Your task to perform on an android device: change notification settings in the gmail app Image 0: 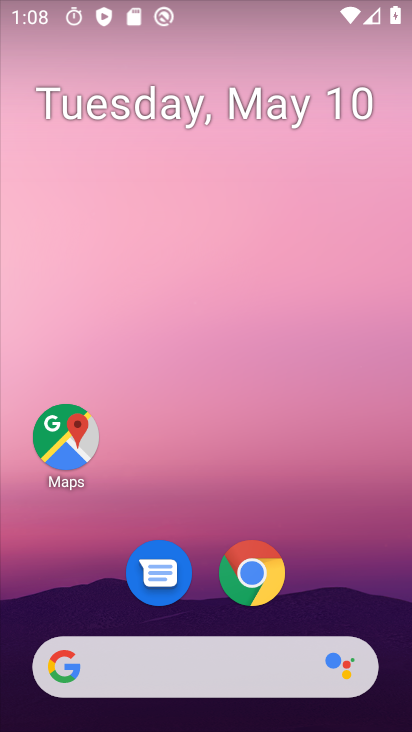
Step 0: drag from (370, 567) to (290, 17)
Your task to perform on an android device: change notification settings in the gmail app Image 1: 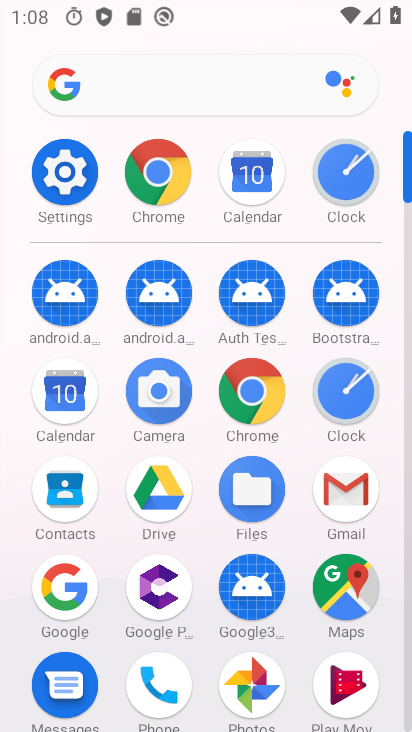
Step 1: click (360, 497)
Your task to perform on an android device: change notification settings in the gmail app Image 2: 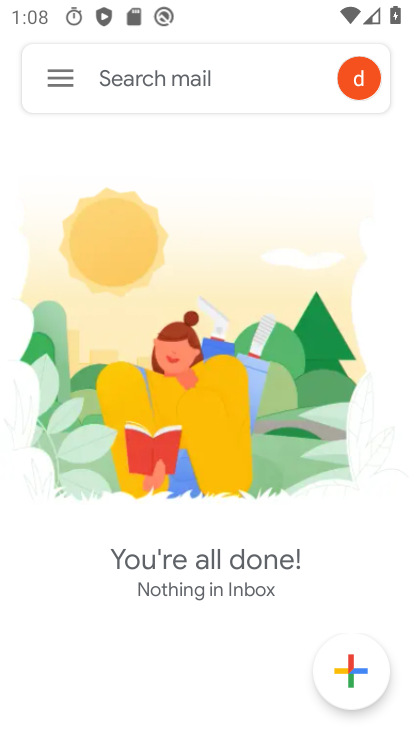
Step 2: click (46, 71)
Your task to perform on an android device: change notification settings in the gmail app Image 3: 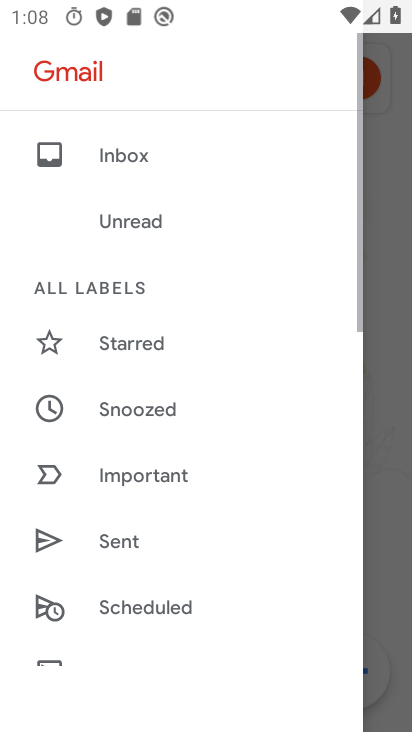
Step 3: drag from (180, 622) to (211, 204)
Your task to perform on an android device: change notification settings in the gmail app Image 4: 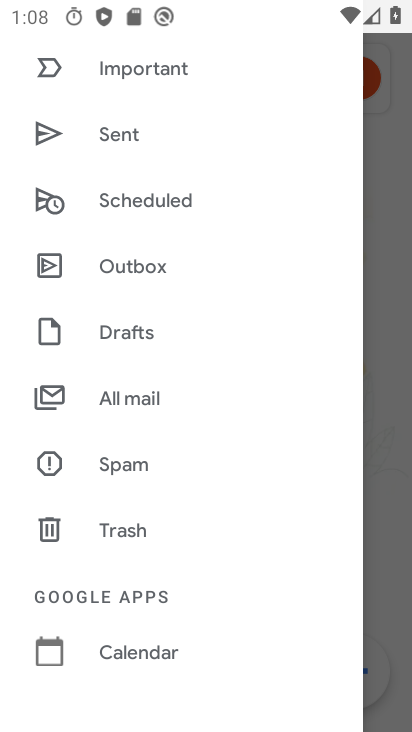
Step 4: drag from (141, 641) to (187, 236)
Your task to perform on an android device: change notification settings in the gmail app Image 5: 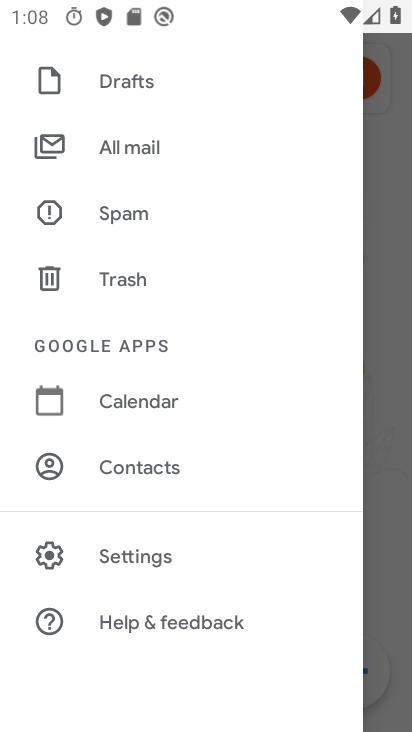
Step 5: click (175, 562)
Your task to perform on an android device: change notification settings in the gmail app Image 6: 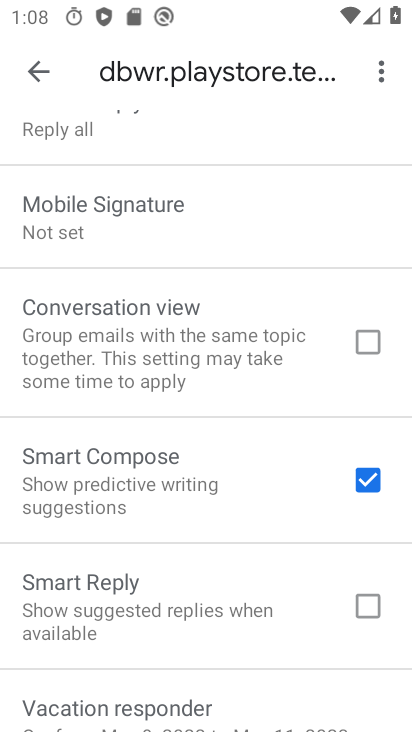
Step 6: drag from (226, 640) to (231, 398)
Your task to perform on an android device: change notification settings in the gmail app Image 7: 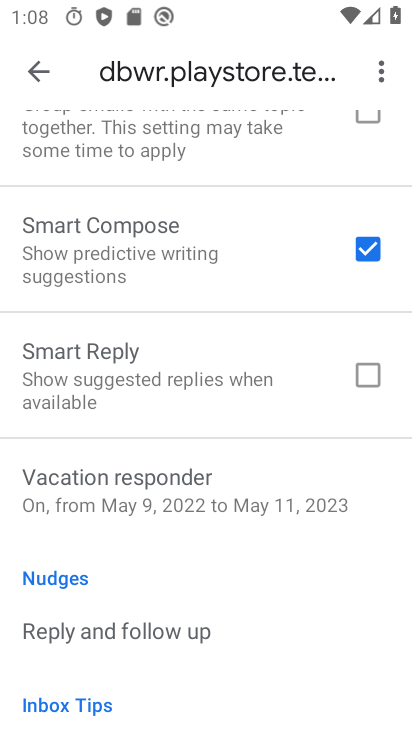
Step 7: drag from (191, 380) to (190, 613)
Your task to perform on an android device: change notification settings in the gmail app Image 8: 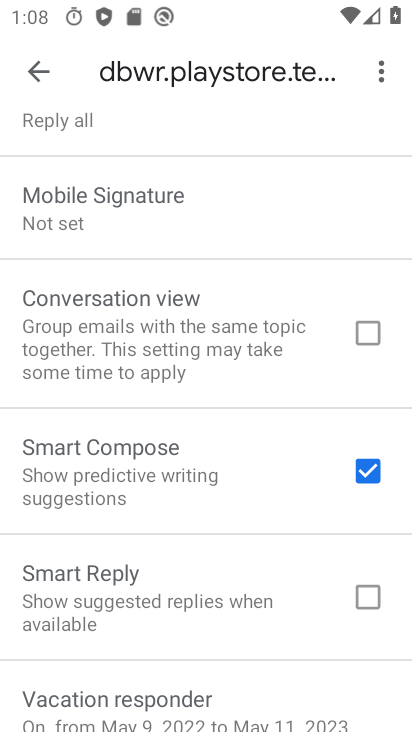
Step 8: drag from (108, 198) to (141, 545)
Your task to perform on an android device: change notification settings in the gmail app Image 9: 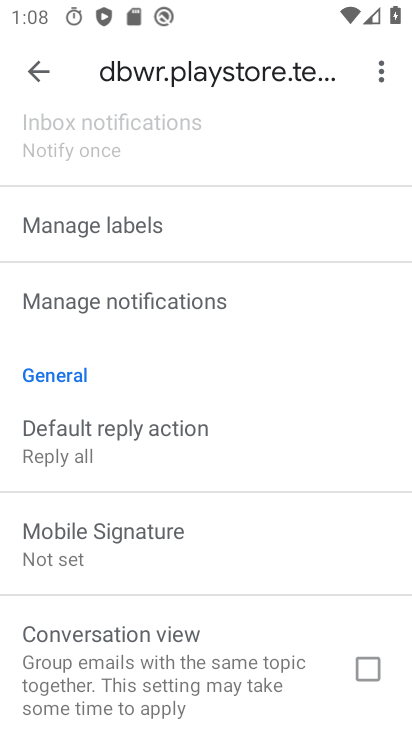
Step 9: drag from (141, 205) to (188, 571)
Your task to perform on an android device: change notification settings in the gmail app Image 10: 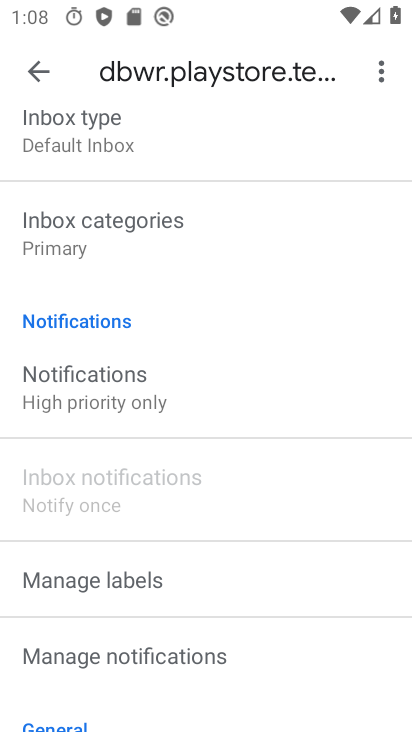
Step 10: click (106, 369)
Your task to perform on an android device: change notification settings in the gmail app Image 11: 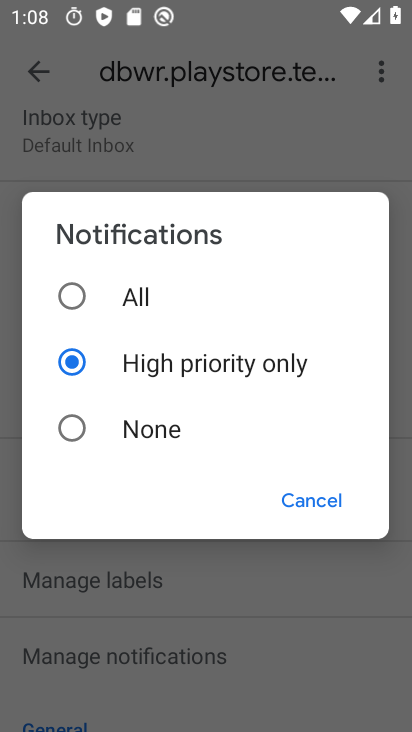
Step 11: click (66, 296)
Your task to perform on an android device: change notification settings in the gmail app Image 12: 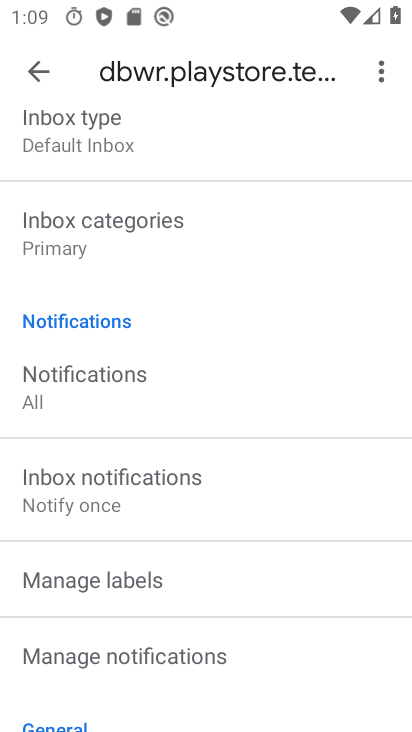
Step 12: click (112, 381)
Your task to perform on an android device: change notification settings in the gmail app Image 13: 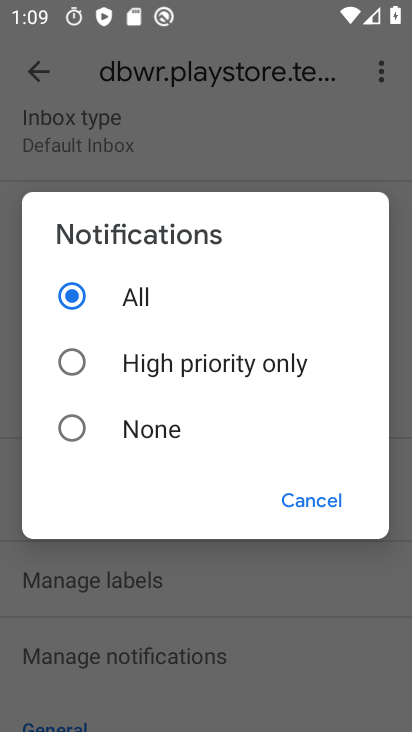
Step 13: click (66, 340)
Your task to perform on an android device: change notification settings in the gmail app Image 14: 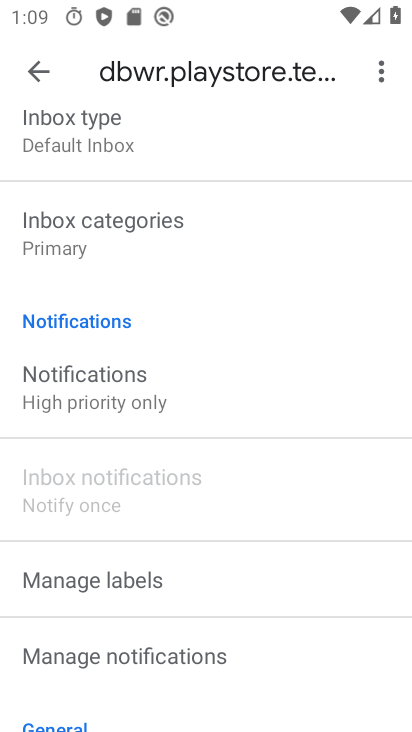
Step 14: task complete